Your task to perform on an android device: Go to Wikipedia Image 0: 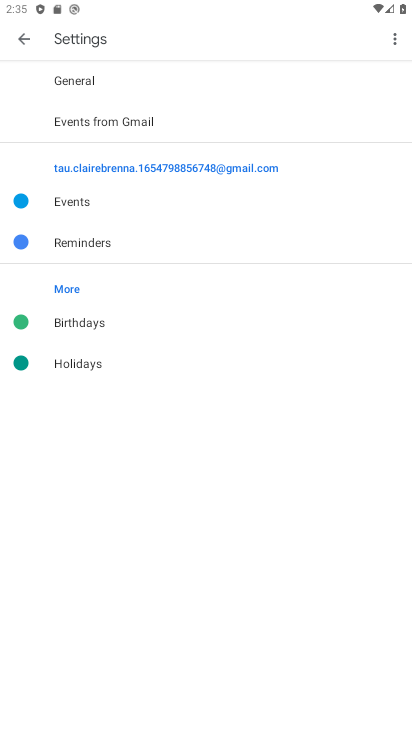
Step 0: press home button
Your task to perform on an android device: Go to Wikipedia Image 1: 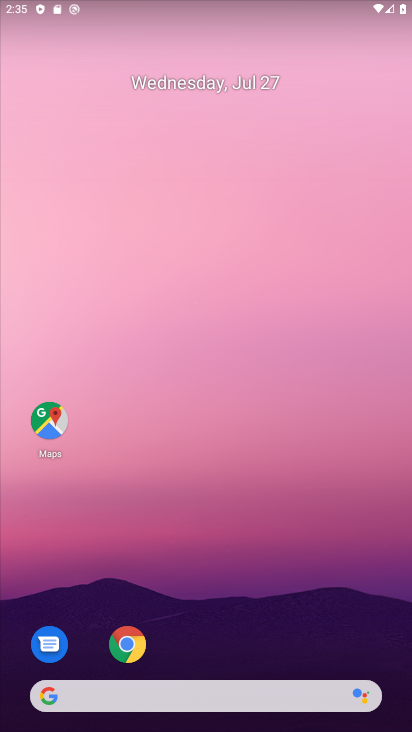
Step 1: click (123, 648)
Your task to perform on an android device: Go to Wikipedia Image 2: 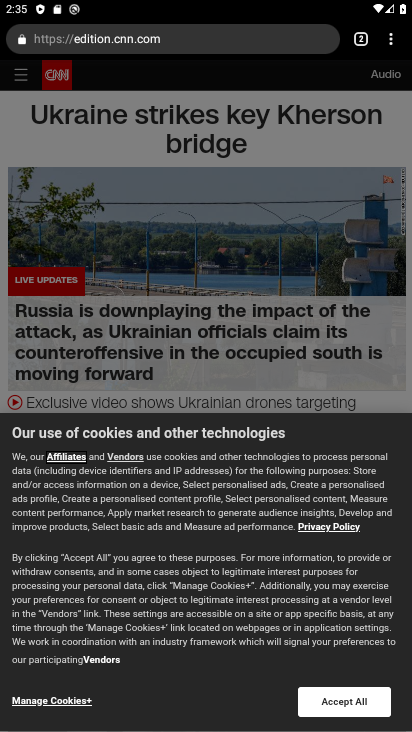
Step 2: click (177, 41)
Your task to perform on an android device: Go to Wikipedia Image 3: 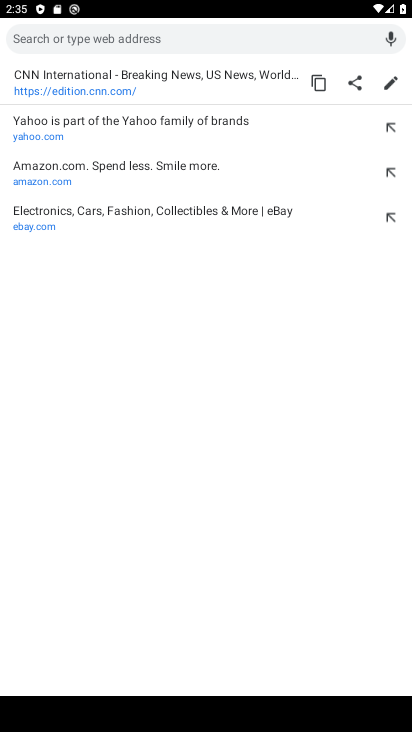
Step 3: type "wikipedia"
Your task to perform on an android device: Go to Wikipedia Image 4: 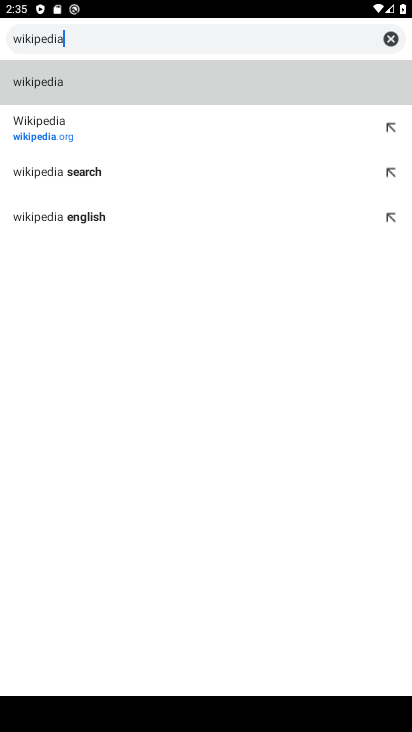
Step 4: click (79, 130)
Your task to perform on an android device: Go to Wikipedia Image 5: 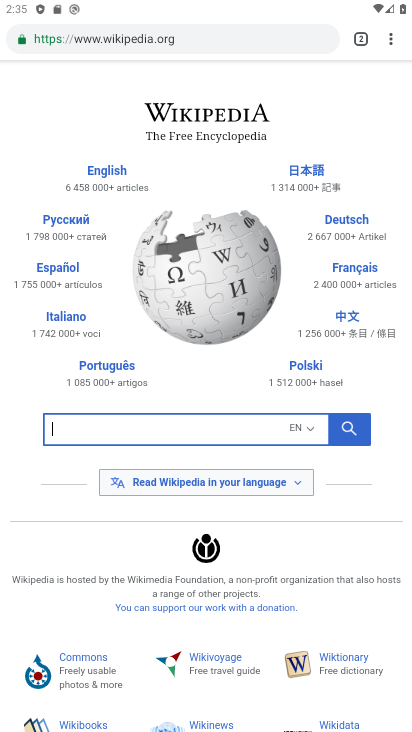
Step 5: task complete